Your task to perform on an android device: turn pop-ups off in chrome Image 0: 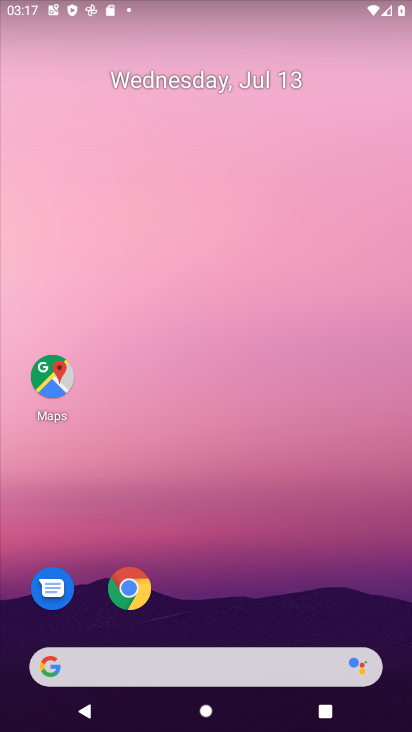
Step 0: click (139, 600)
Your task to perform on an android device: turn pop-ups off in chrome Image 1: 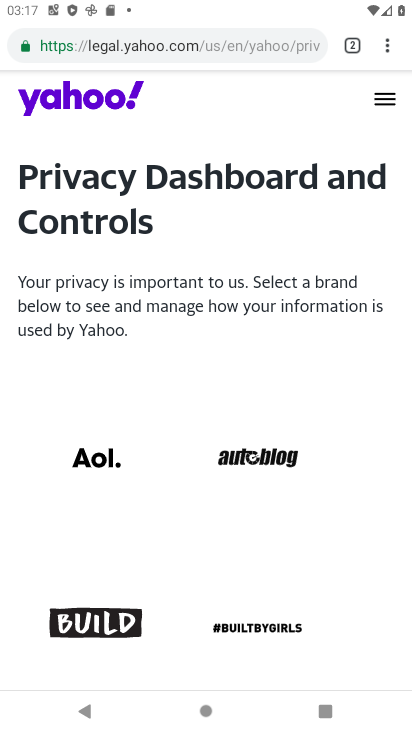
Step 1: click (389, 42)
Your task to perform on an android device: turn pop-ups off in chrome Image 2: 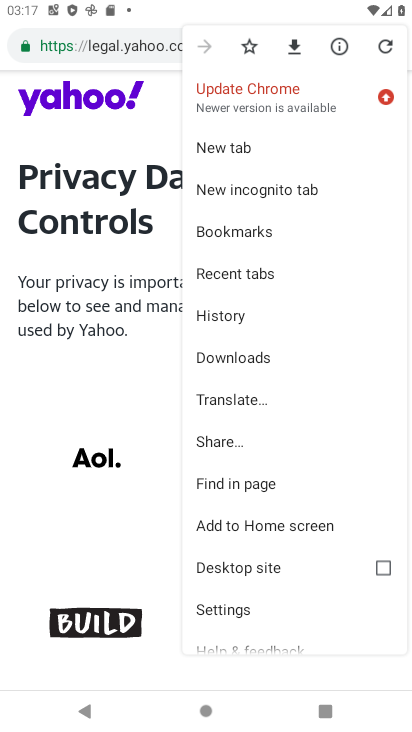
Step 2: click (229, 609)
Your task to perform on an android device: turn pop-ups off in chrome Image 3: 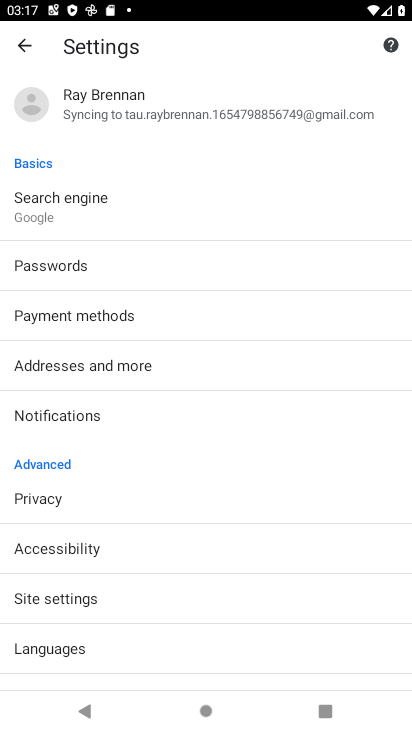
Step 3: click (42, 594)
Your task to perform on an android device: turn pop-ups off in chrome Image 4: 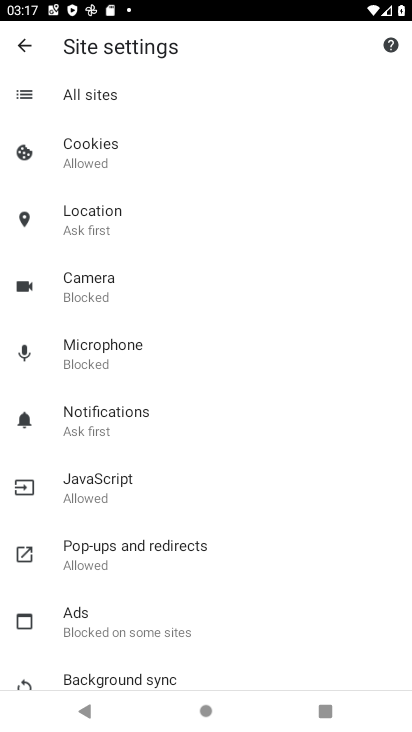
Step 4: click (95, 543)
Your task to perform on an android device: turn pop-ups off in chrome Image 5: 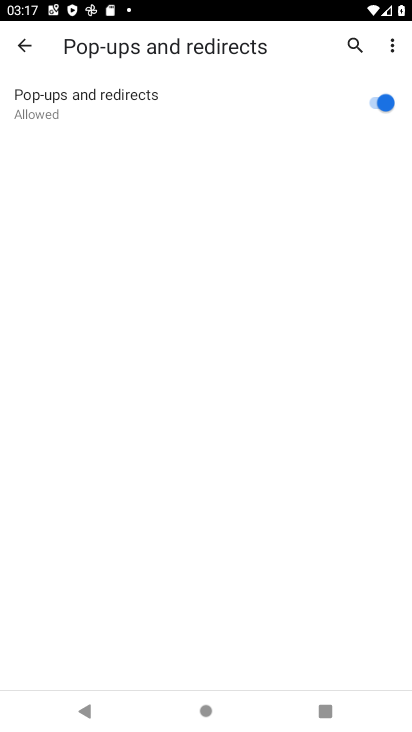
Step 5: click (385, 108)
Your task to perform on an android device: turn pop-ups off in chrome Image 6: 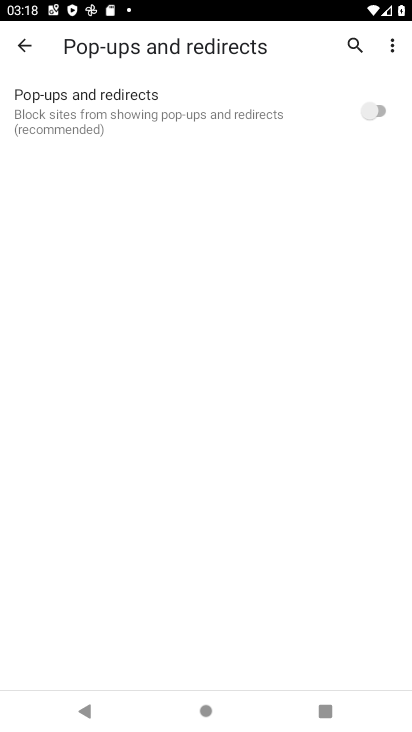
Step 6: task complete